Your task to perform on an android device: turn on bluetooth scan Image 0: 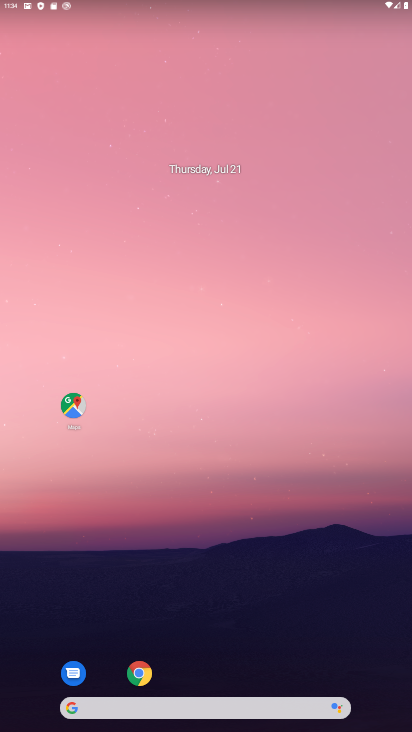
Step 0: drag from (265, 400) to (327, 213)
Your task to perform on an android device: turn on bluetooth scan Image 1: 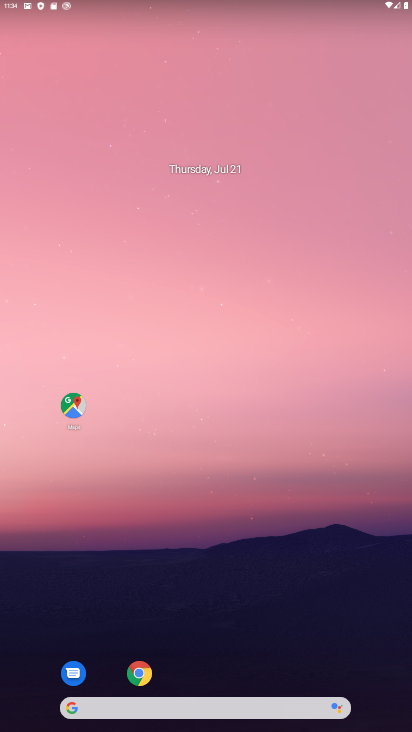
Step 1: drag from (257, 436) to (313, 100)
Your task to perform on an android device: turn on bluetooth scan Image 2: 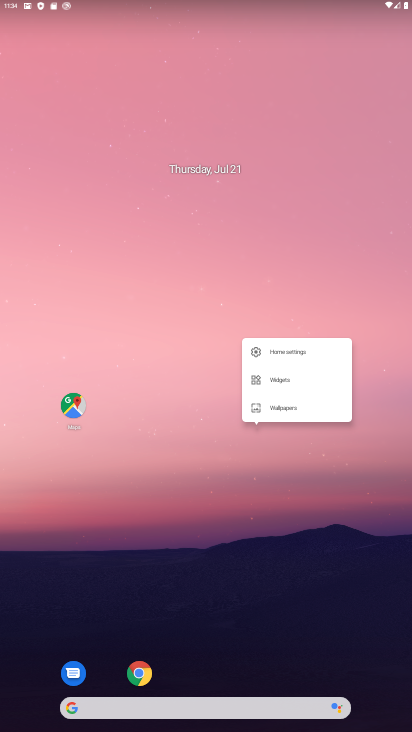
Step 2: click (240, 566)
Your task to perform on an android device: turn on bluetooth scan Image 3: 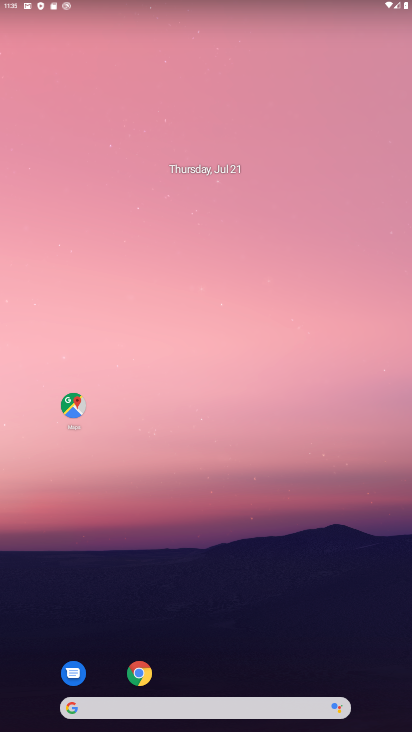
Step 3: drag from (240, 566) to (259, 285)
Your task to perform on an android device: turn on bluetooth scan Image 4: 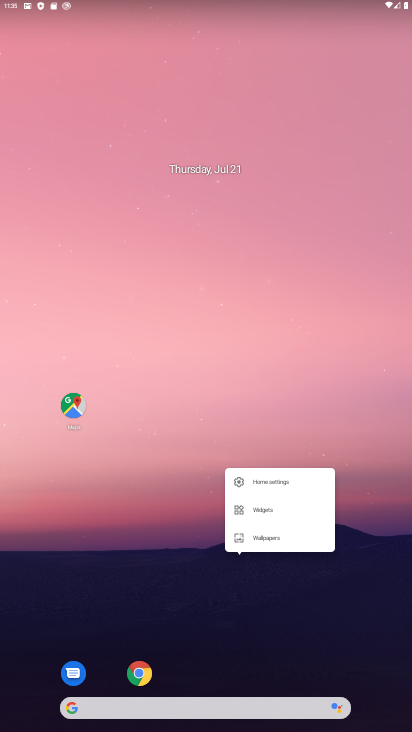
Step 4: click (176, 358)
Your task to perform on an android device: turn on bluetooth scan Image 5: 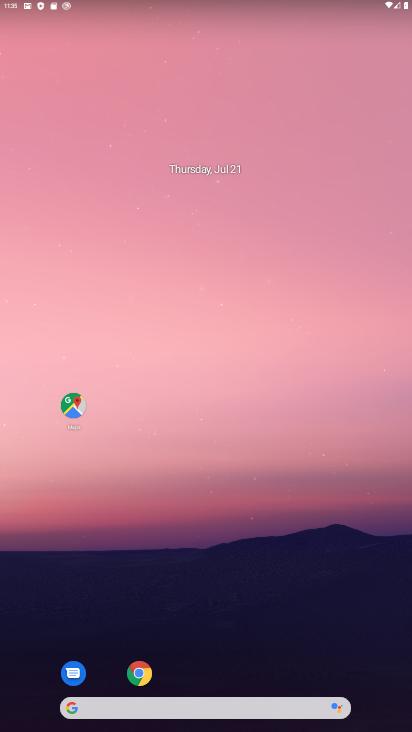
Step 5: drag from (219, 463) to (318, 154)
Your task to perform on an android device: turn on bluetooth scan Image 6: 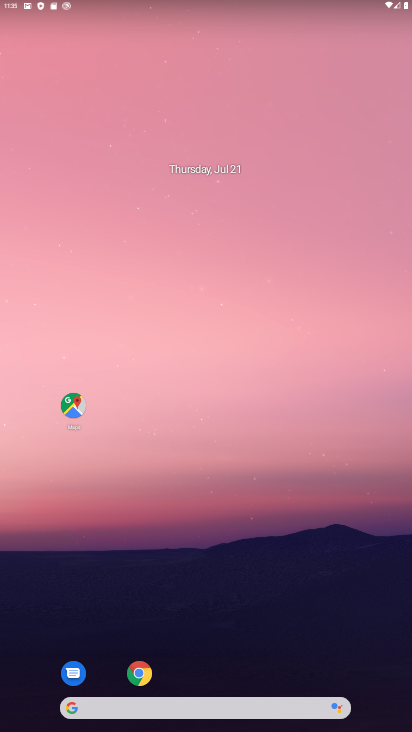
Step 6: drag from (229, 557) to (255, 319)
Your task to perform on an android device: turn on bluetooth scan Image 7: 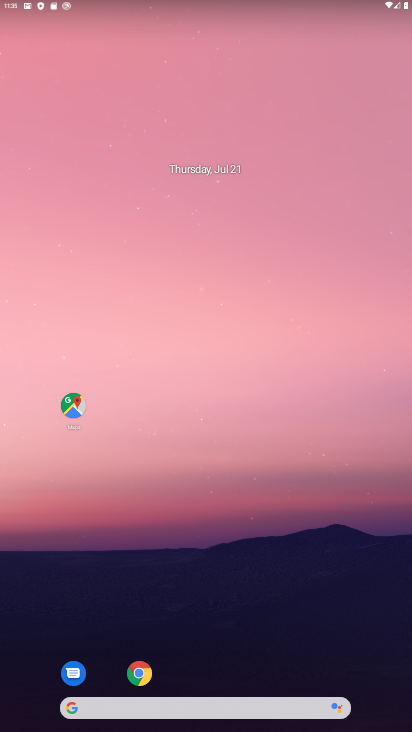
Step 7: drag from (236, 515) to (274, 85)
Your task to perform on an android device: turn on bluetooth scan Image 8: 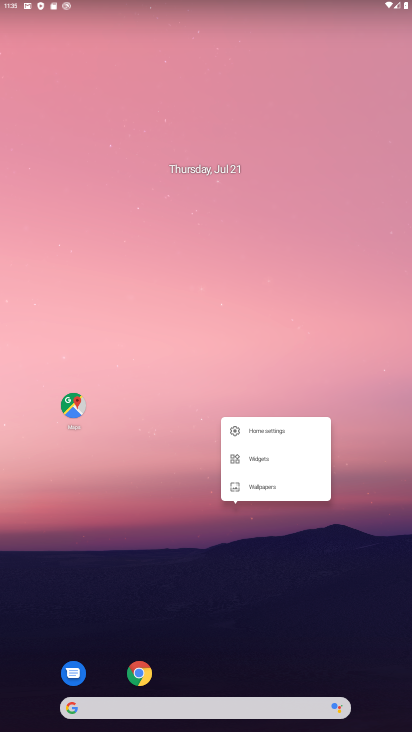
Step 8: click (192, 354)
Your task to perform on an android device: turn on bluetooth scan Image 9: 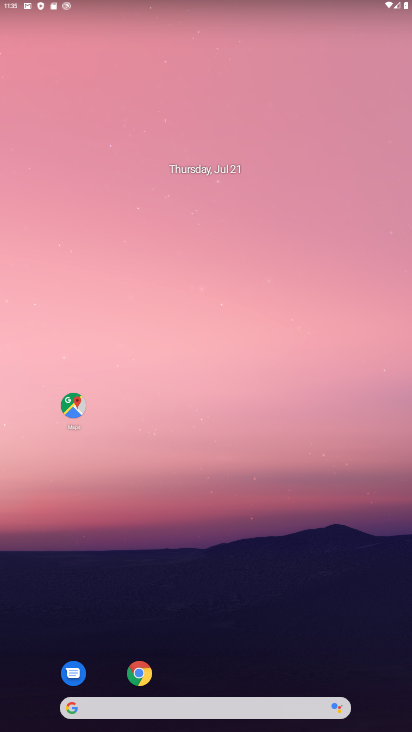
Step 9: drag from (211, 590) to (243, 247)
Your task to perform on an android device: turn on bluetooth scan Image 10: 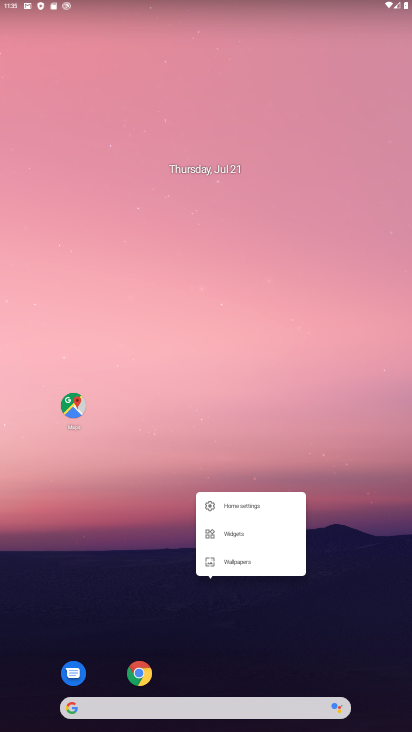
Step 10: click (258, 365)
Your task to perform on an android device: turn on bluetooth scan Image 11: 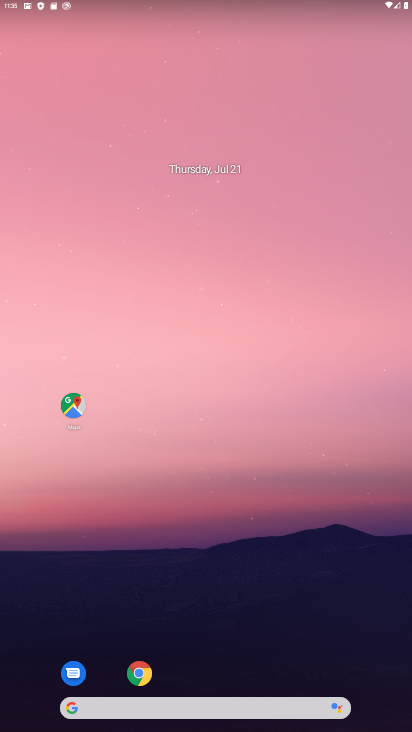
Step 11: drag from (258, 365) to (318, 92)
Your task to perform on an android device: turn on bluetooth scan Image 12: 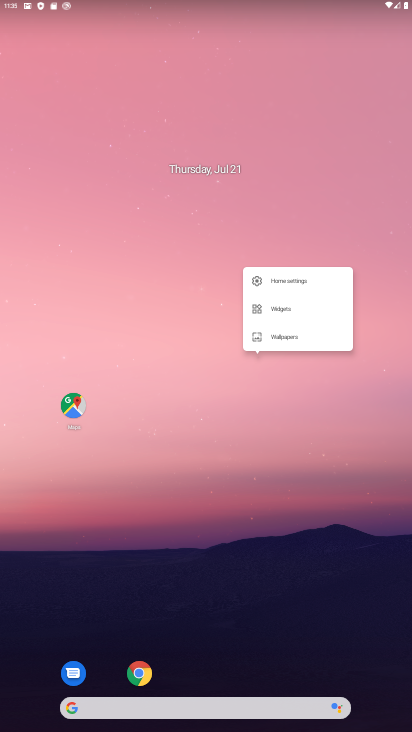
Step 12: click (321, 508)
Your task to perform on an android device: turn on bluetooth scan Image 13: 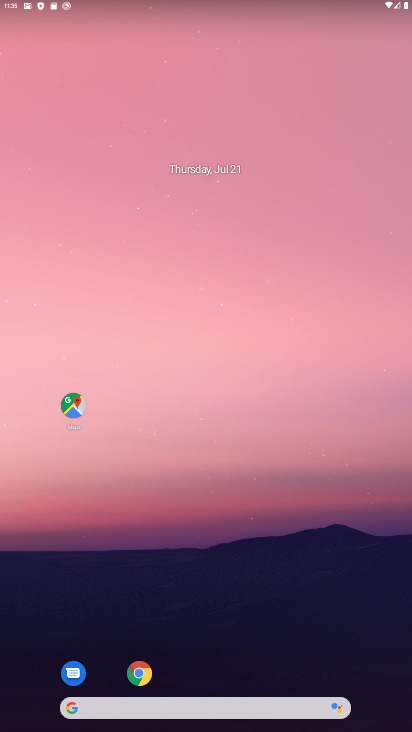
Step 13: drag from (372, 658) to (346, 207)
Your task to perform on an android device: turn on bluetooth scan Image 14: 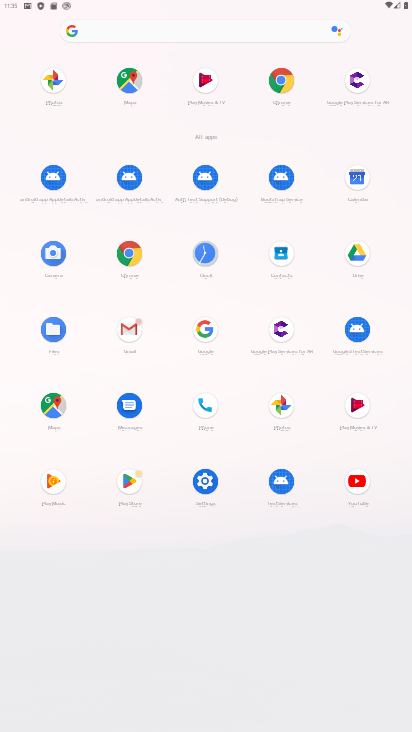
Step 14: click (209, 482)
Your task to perform on an android device: turn on bluetooth scan Image 15: 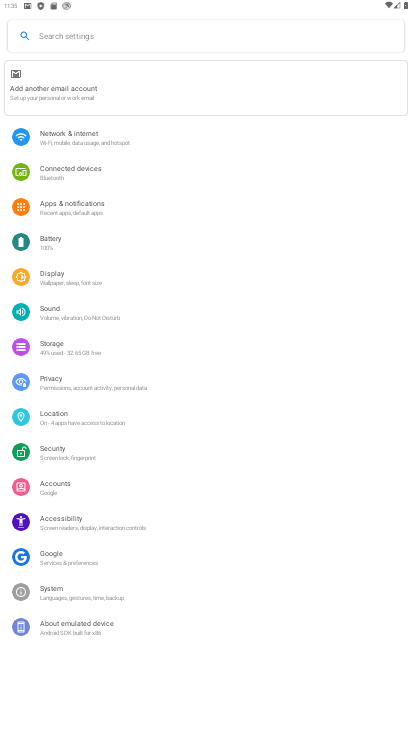
Step 15: click (73, 141)
Your task to perform on an android device: turn on bluetooth scan Image 16: 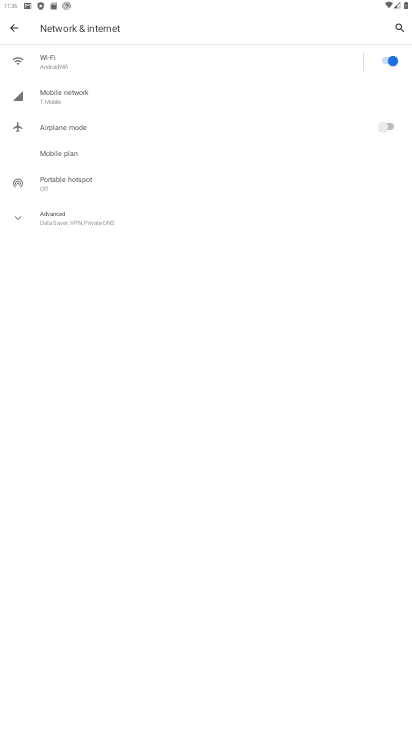
Step 16: click (13, 28)
Your task to perform on an android device: turn on bluetooth scan Image 17: 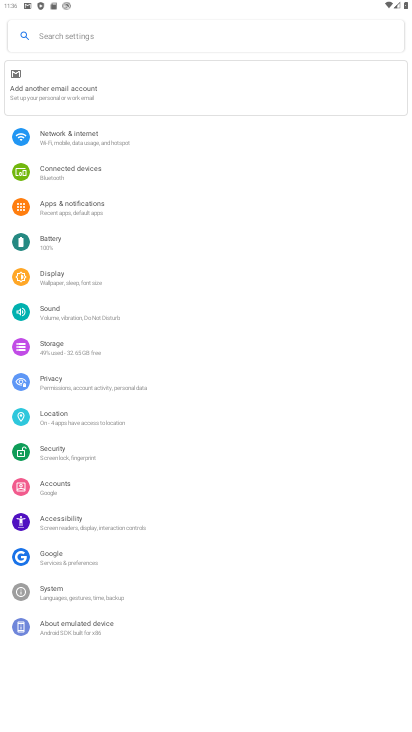
Step 17: click (65, 175)
Your task to perform on an android device: turn on bluetooth scan Image 18: 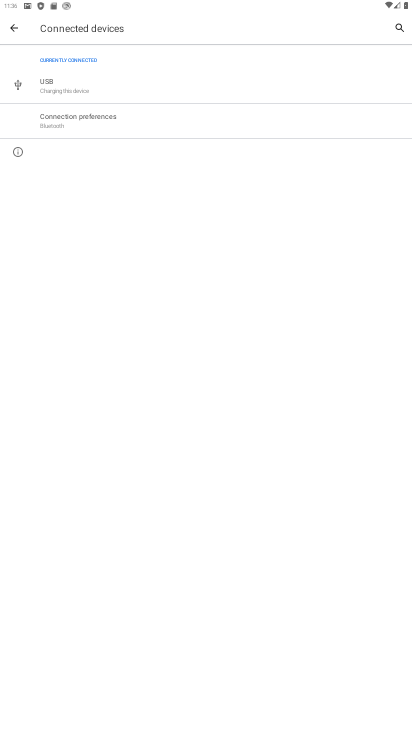
Step 18: click (14, 22)
Your task to perform on an android device: turn on bluetooth scan Image 19: 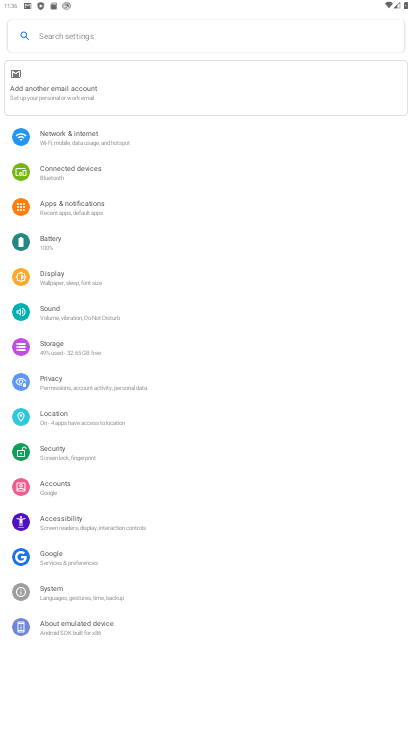
Step 19: task complete